Your task to perform on an android device: Open the calendar app, open the side menu, and click the "Day" option Image 0: 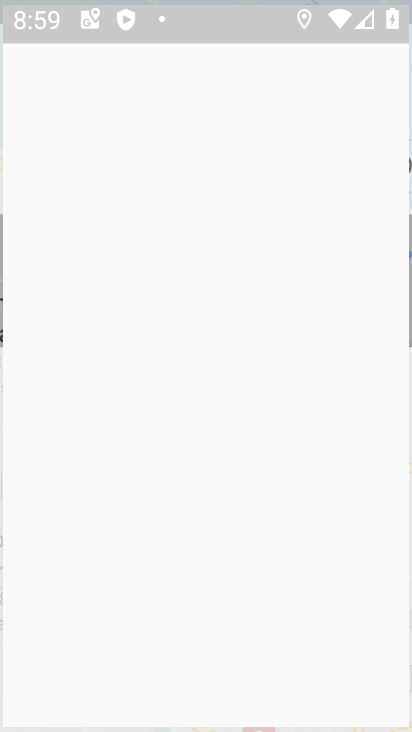
Step 0: press home button
Your task to perform on an android device: Open the calendar app, open the side menu, and click the "Day" option Image 1: 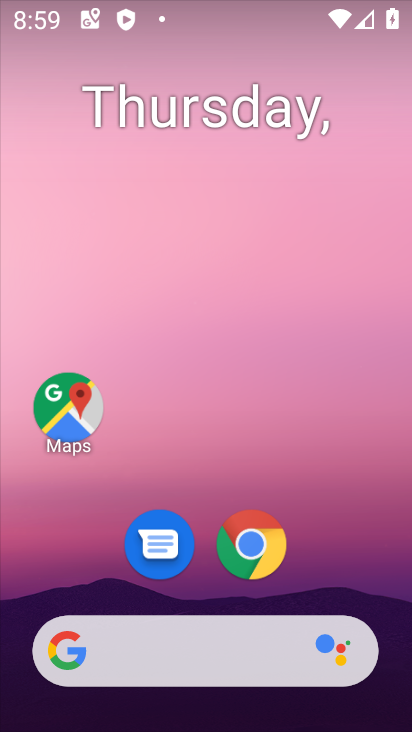
Step 1: drag from (80, 613) to (204, 98)
Your task to perform on an android device: Open the calendar app, open the side menu, and click the "Day" option Image 2: 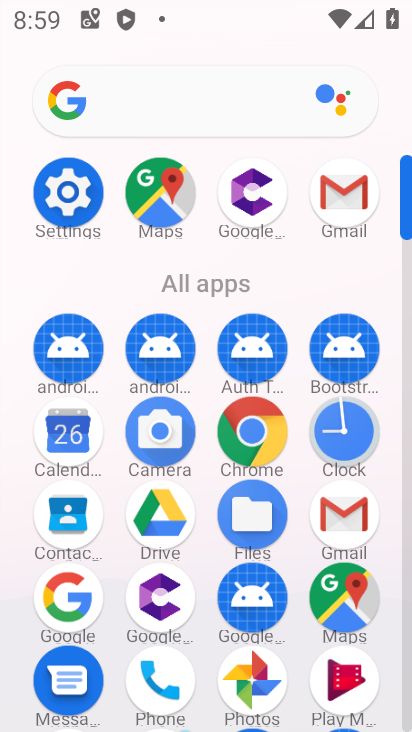
Step 2: click (62, 441)
Your task to perform on an android device: Open the calendar app, open the side menu, and click the "Day" option Image 3: 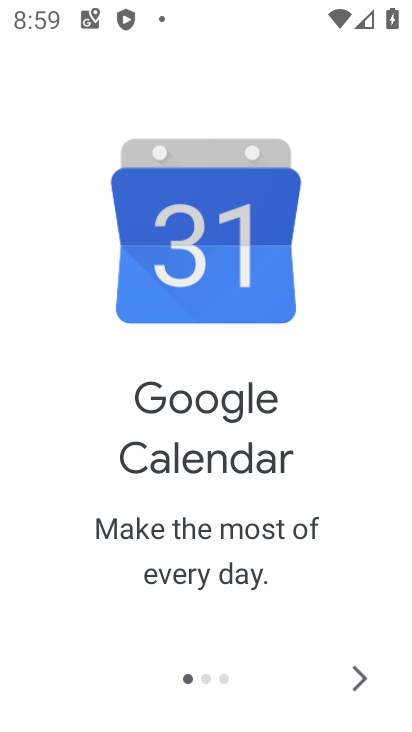
Step 3: click (357, 675)
Your task to perform on an android device: Open the calendar app, open the side menu, and click the "Day" option Image 4: 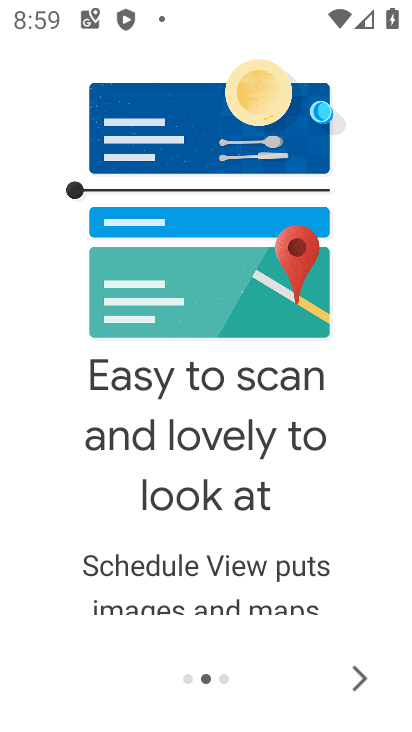
Step 4: click (357, 675)
Your task to perform on an android device: Open the calendar app, open the side menu, and click the "Day" option Image 5: 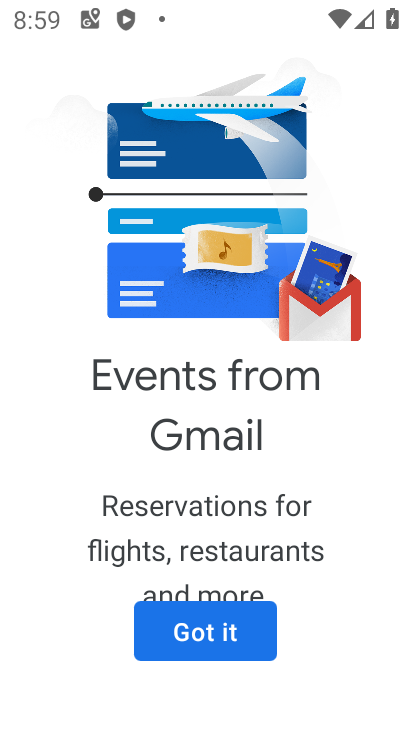
Step 5: click (199, 639)
Your task to perform on an android device: Open the calendar app, open the side menu, and click the "Day" option Image 6: 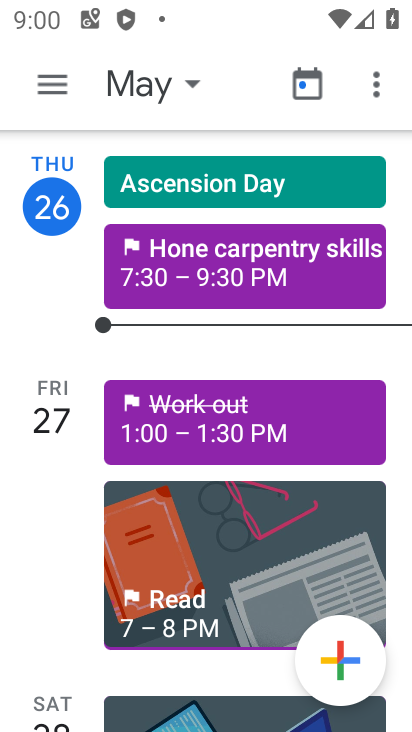
Step 6: click (38, 113)
Your task to perform on an android device: Open the calendar app, open the side menu, and click the "Day" option Image 7: 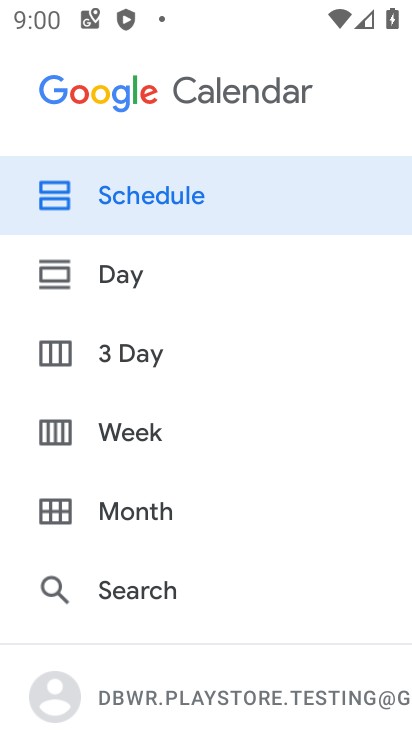
Step 7: click (187, 267)
Your task to perform on an android device: Open the calendar app, open the side menu, and click the "Day" option Image 8: 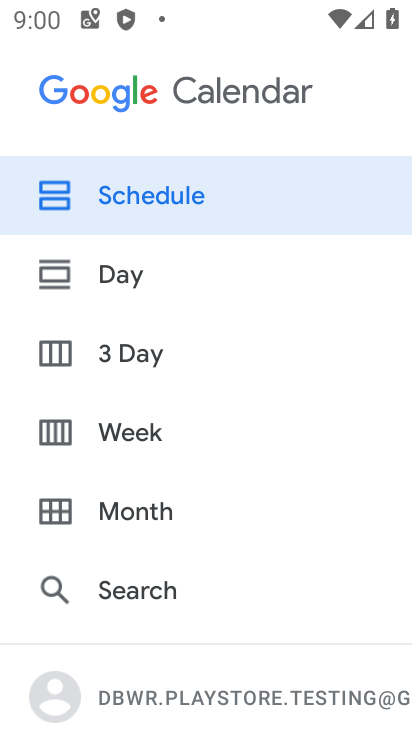
Step 8: click (170, 278)
Your task to perform on an android device: Open the calendar app, open the side menu, and click the "Day" option Image 9: 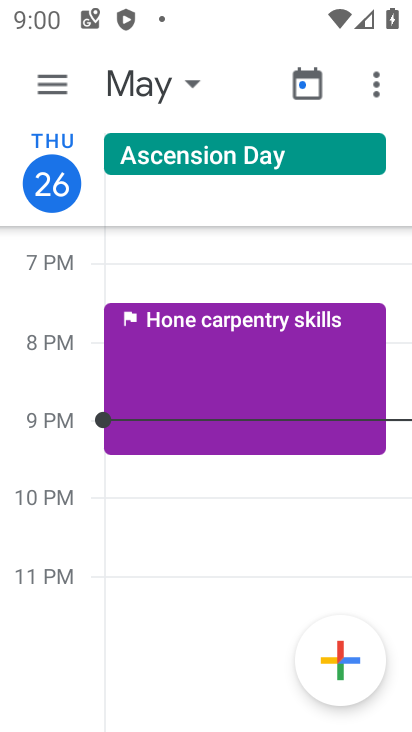
Step 9: task complete